Your task to perform on an android device: Do I have any events this weekend? Image 0: 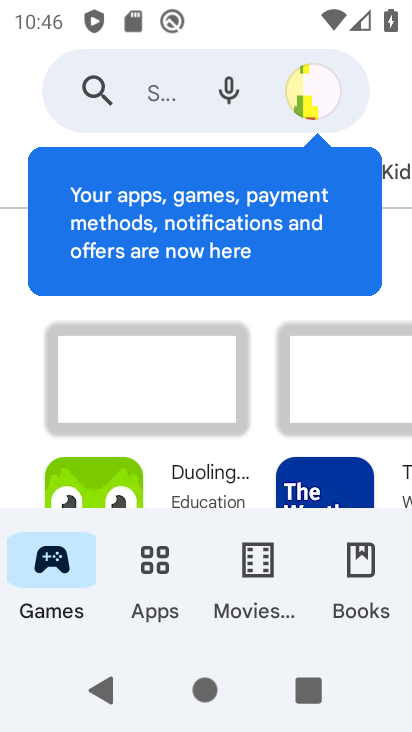
Step 0: press home button
Your task to perform on an android device: Do I have any events this weekend? Image 1: 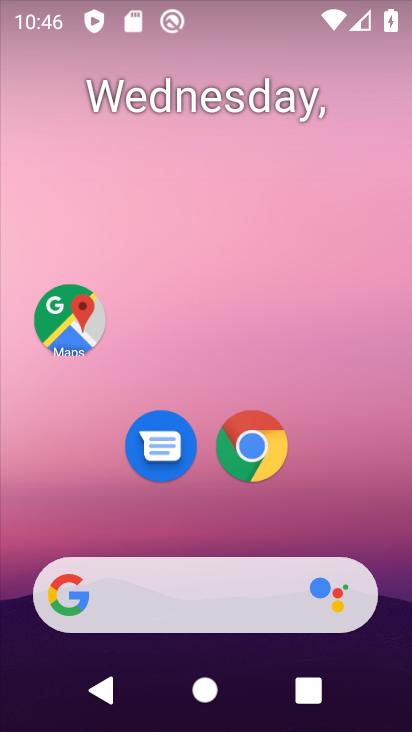
Step 1: drag from (383, 535) to (378, 195)
Your task to perform on an android device: Do I have any events this weekend? Image 2: 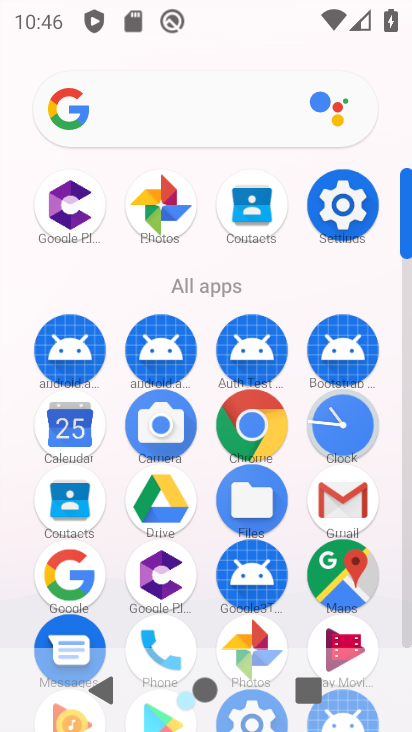
Step 2: click (83, 435)
Your task to perform on an android device: Do I have any events this weekend? Image 3: 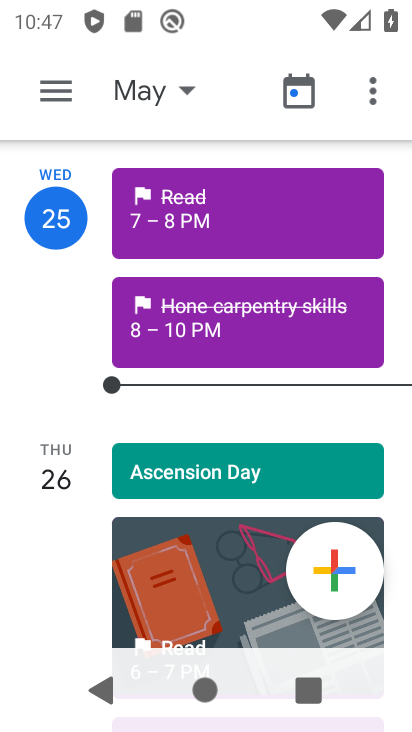
Step 3: click (197, 95)
Your task to perform on an android device: Do I have any events this weekend? Image 4: 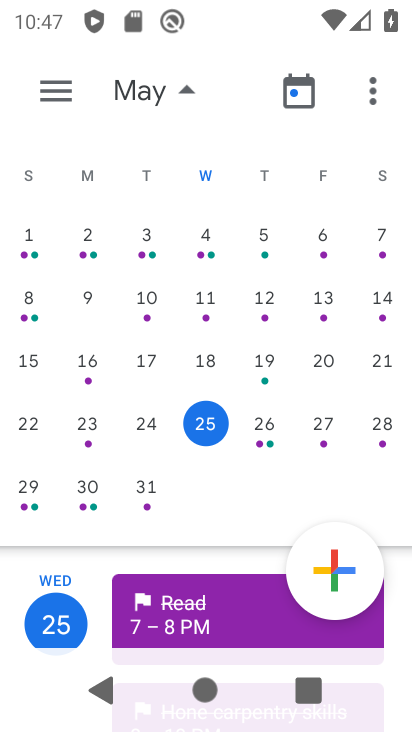
Step 4: click (382, 426)
Your task to perform on an android device: Do I have any events this weekend? Image 5: 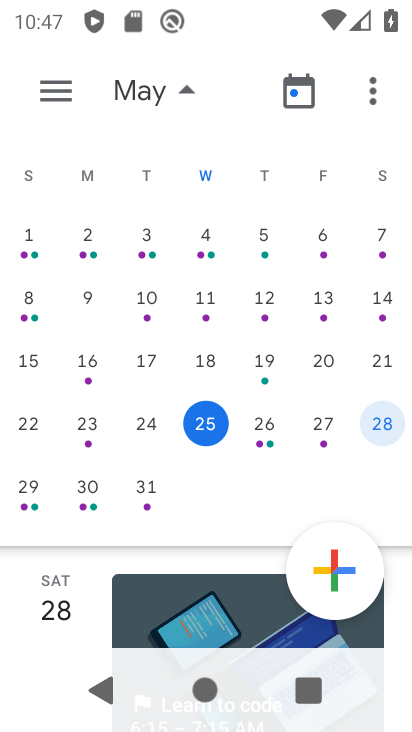
Step 5: drag from (240, 509) to (249, 27)
Your task to perform on an android device: Do I have any events this weekend? Image 6: 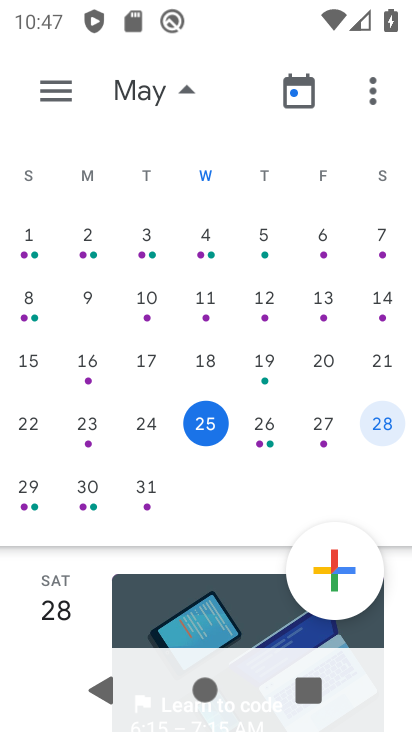
Step 6: click (178, 592)
Your task to perform on an android device: Do I have any events this weekend? Image 7: 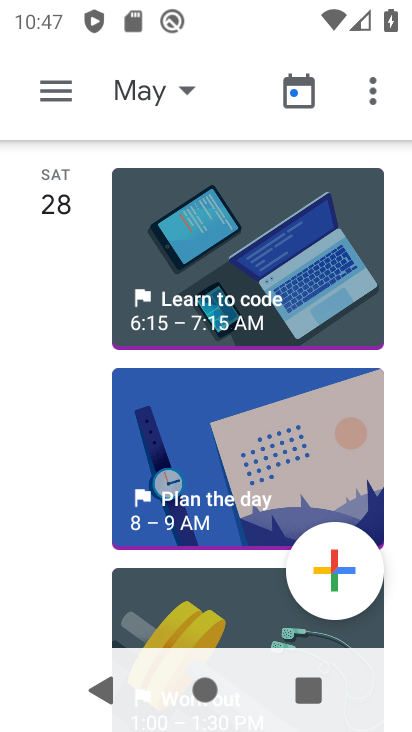
Step 7: click (284, 264)
Your task to perform on an android device: Do I have any events this weekend? Image 8: 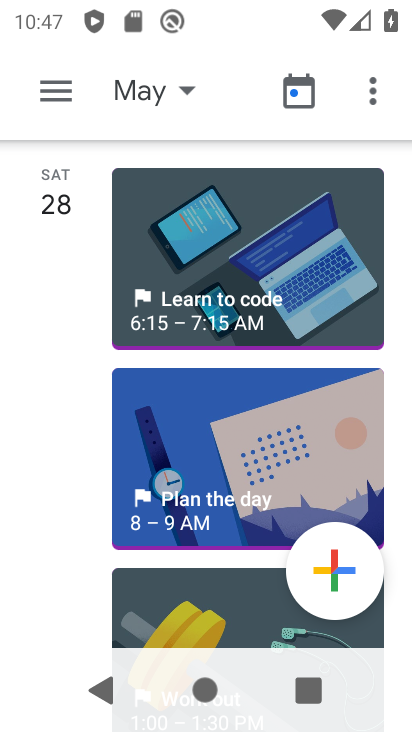
Step 8: task complete